Your task to perform on an android device: change the clock style Image 0: 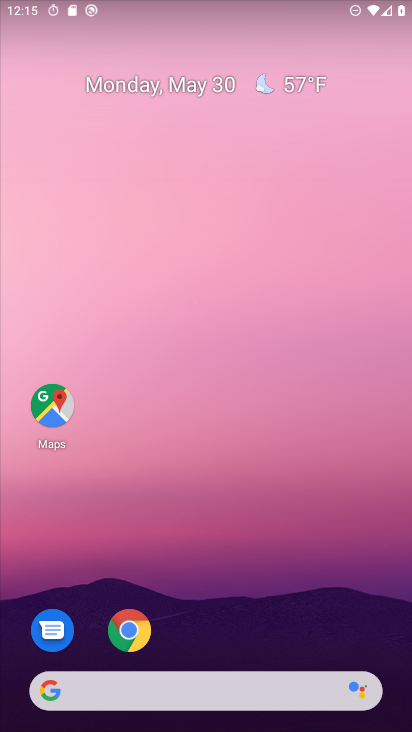
Step 0: drag from (277, 239) to (245, 164)
Your task to perform on an android device: change the clock style Image 1: 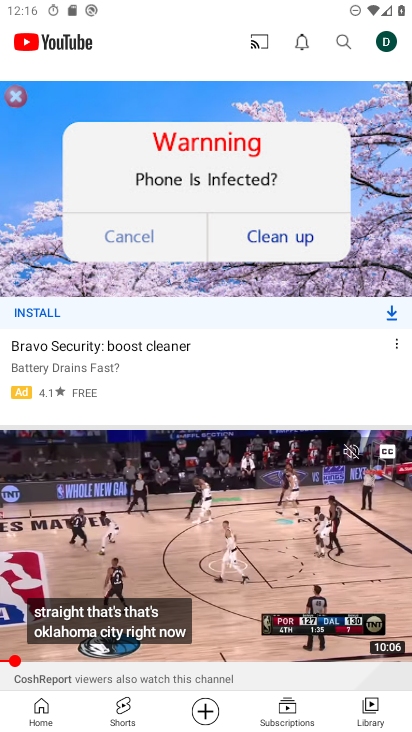
Step 1: press home button
Your task to perform on an android device: change the clock style Image 2: 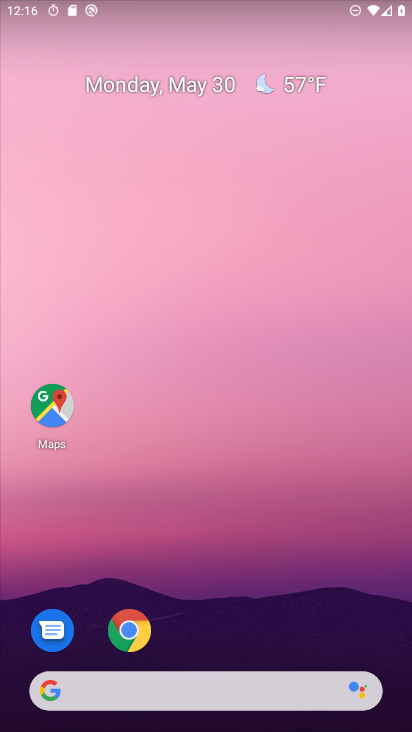
Step 2: drag from (320, 706) to (303, 250)
Your task to perform on an android device: change the clock style Image 3: 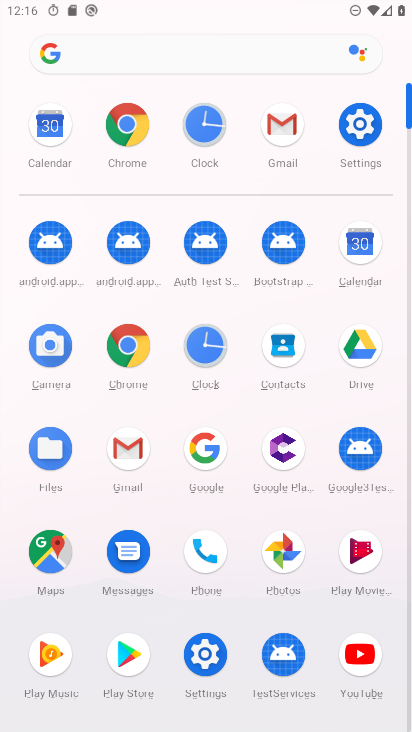
Step 3: click (202, 359)
Your task to perform on an android device: change the clock style Image 4: 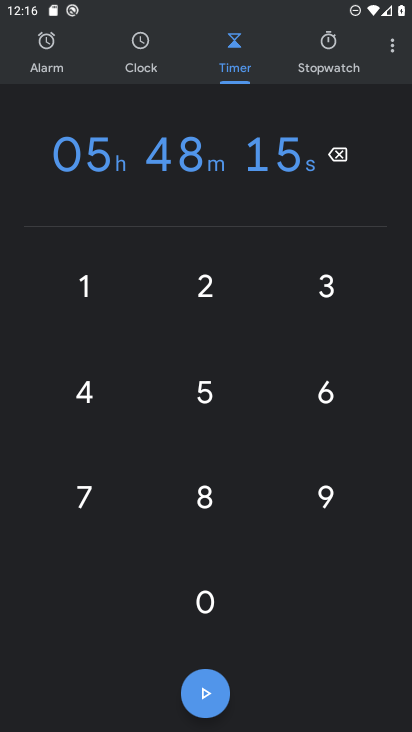
Step 4: click (382, 60)
Your task to perform on an android device: change the clock style Image 5: 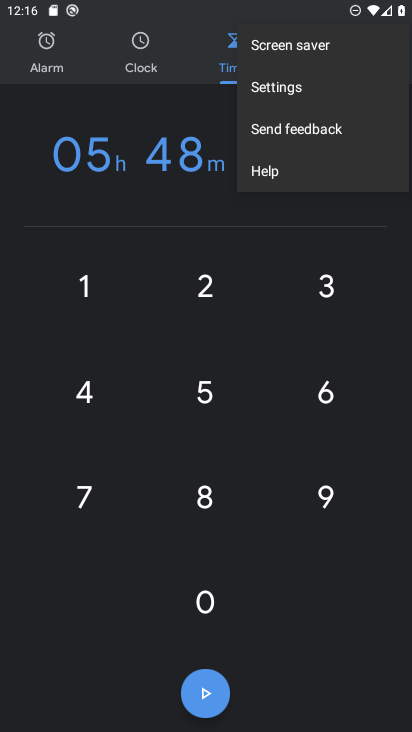
Step 5: click (275, 103)
Your task to perform on an android device: change the clock style Image 6: 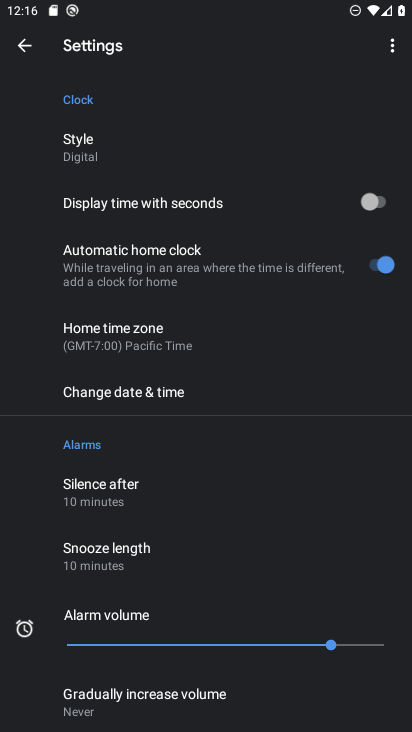
Step 6: click (152, 160)
Your task to perform on an android device: change the clock style Image 7: 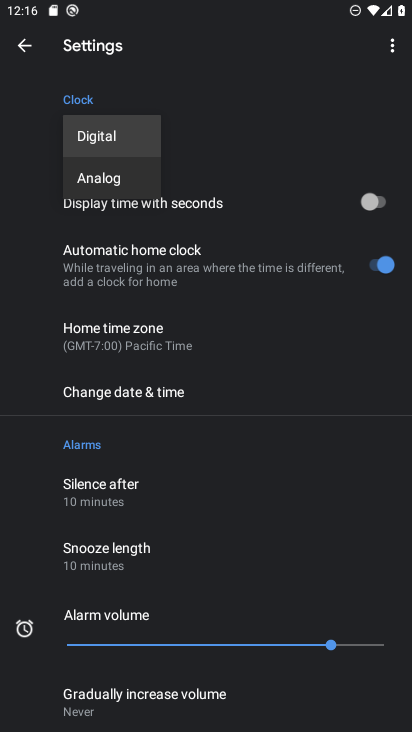
Step 7: click (122, 169)
Your task to perform on an android device: change the clock style Image 8: 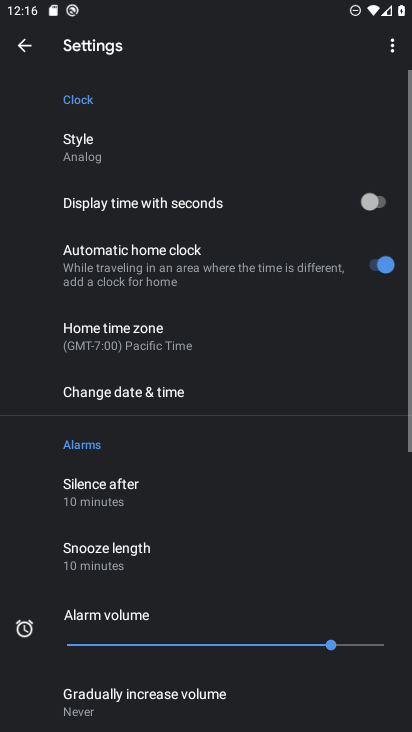
Step 8: task complete